Your task to perform on an android device: turn on javascript in the chrome app Image 0: 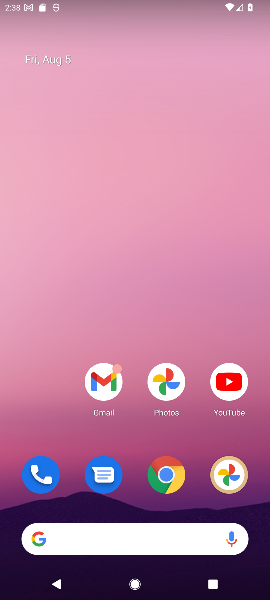
Step 0: click (169, 480)
Your task to perform on an android device: turn on javascript in the chrome app Image 1: 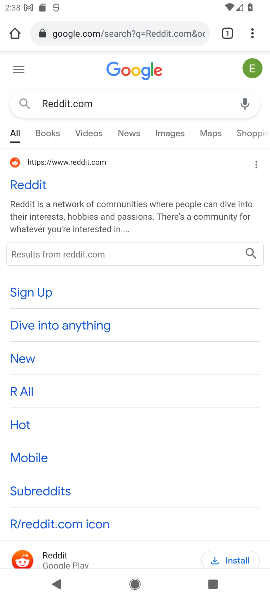
Step 1: click (252, 33)
Your task to perform on an android device: turn on javascript in the chrome app Image 2: 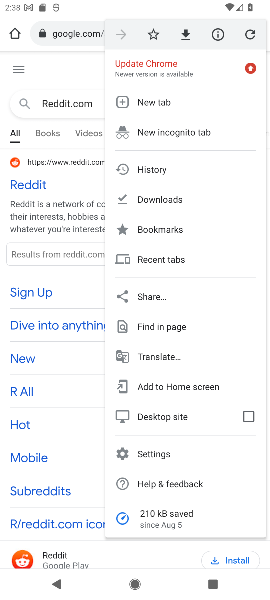
Step 2: click (157, 452)
Your task to perform on an android device: turn on javascript in the chrome app Image 3: 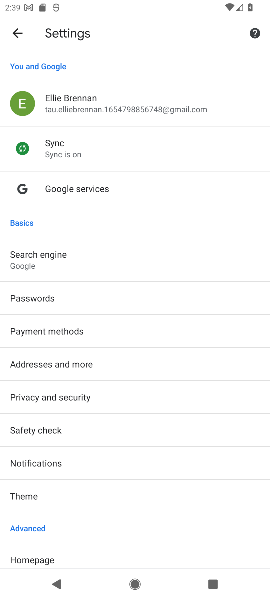
Step 3: drag from (86, 543) to (88, 371)
Your task to perform on an android device: turn on javascript in the chrome app Image 4: 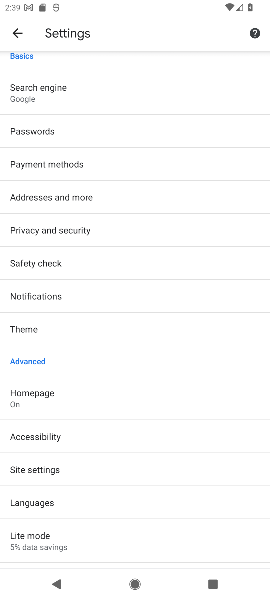
Step 4: click (27, 469)
Your task to perform on an android device: turn on javascript in the chrome app Image 5: 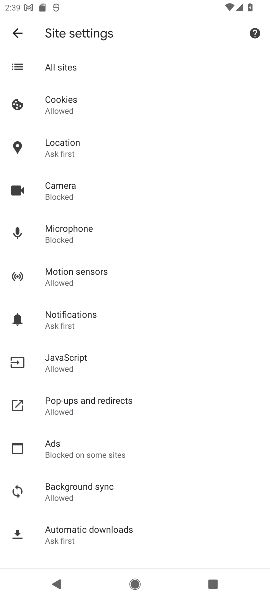
Step 5: click (61, 364)
Your task to perform on an android device: turn on javascript in the chrome app Image 6: 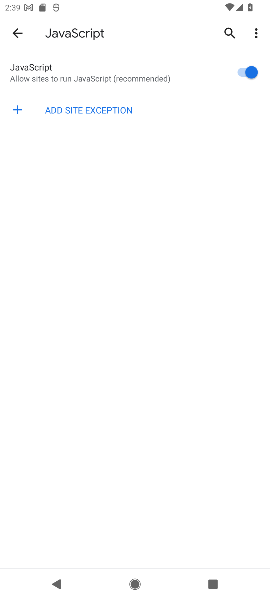
Step 6: task complete